Your task to perform on an android device: add a contact Image 0: 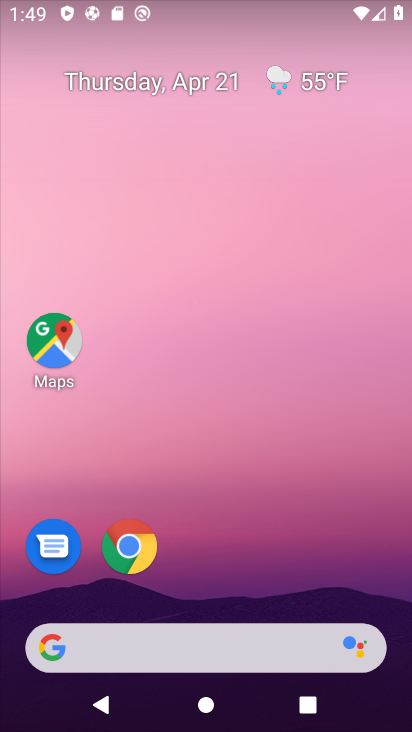
Step 0: drag from (203, 492) to (148, 80)
Your task to perform on an android device: add a contact Image 1: 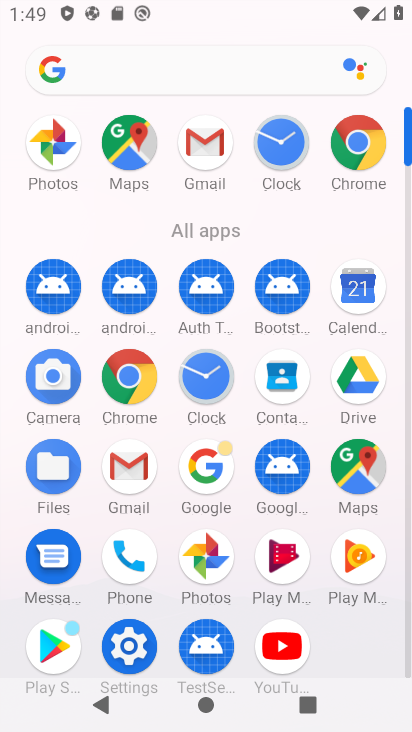
Step 1: click (285, 375)
Your task to perform on an android device: add a contact Image 2: 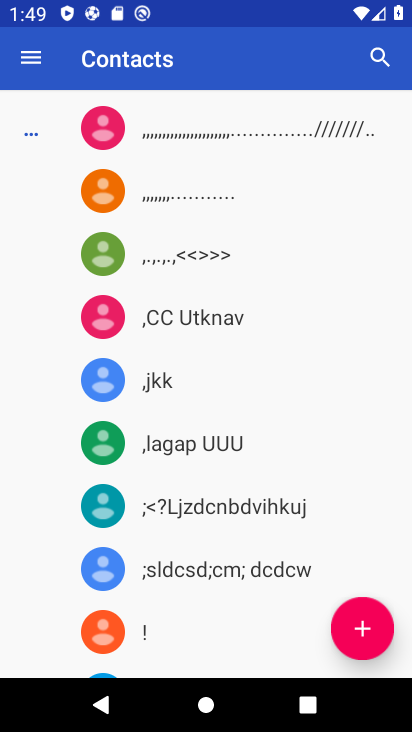
Step 2: click (356, 641)
Your task to perform on an android device: add a contact Image 3: 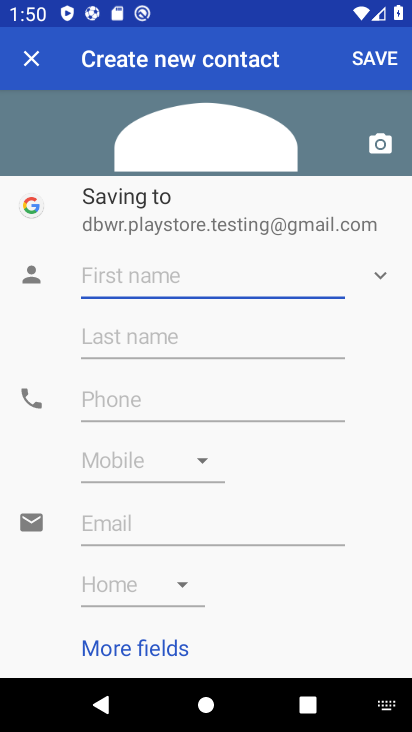
Step 3: type "jhgfgh"
Your task to perform on an android device: add a contact Image 4: 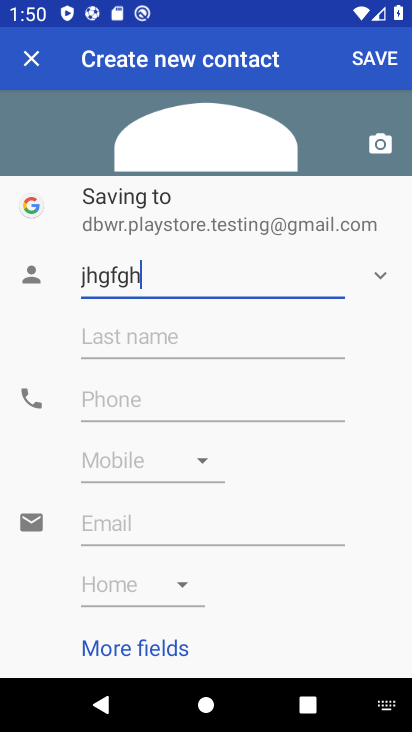
Step 4: click (369, 76)
Your task to perform on an android device: add a contact Image 5: 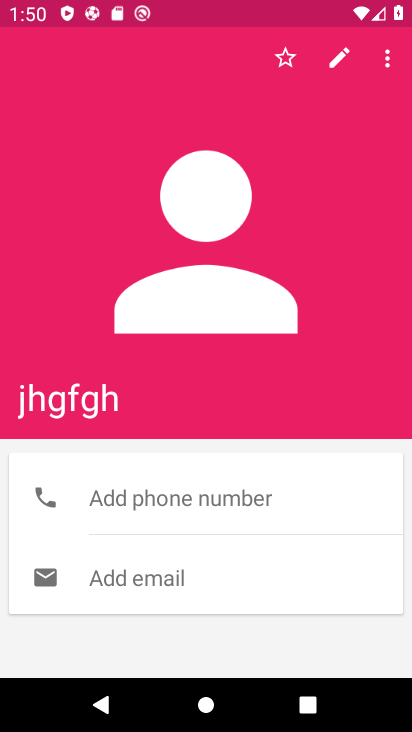
Step 5: task complete